Your task to perform on an android device: Go to Reddit.com Image 0: 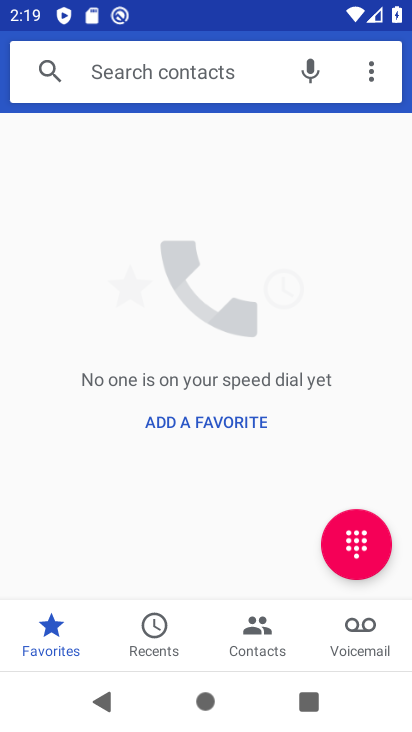
Step 0: press home button
Your task to perform on an android device: Go to Reddit.com Image 1: 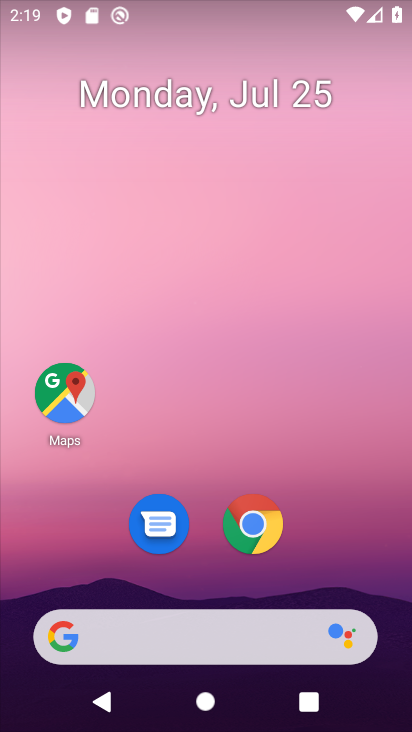
Step 1: click (248, 650)
Your task to perform on an android device: Go to Reddit.com Image 2: 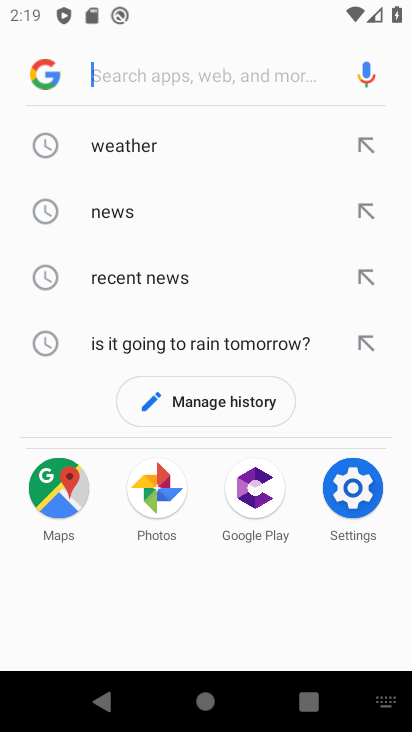
Step 2: type "reddit.com"
Your task to perform on an android device: Go to Reddit.com Image 3: 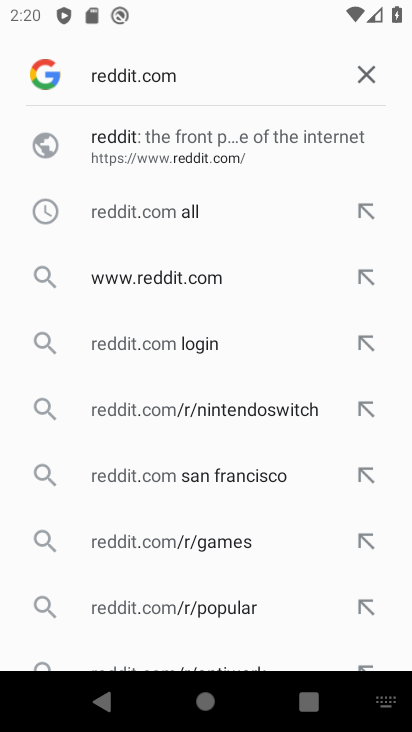
Step 3: click (159, 270)
Your task to perform on an android device: Go to Reddit.com Image 4: 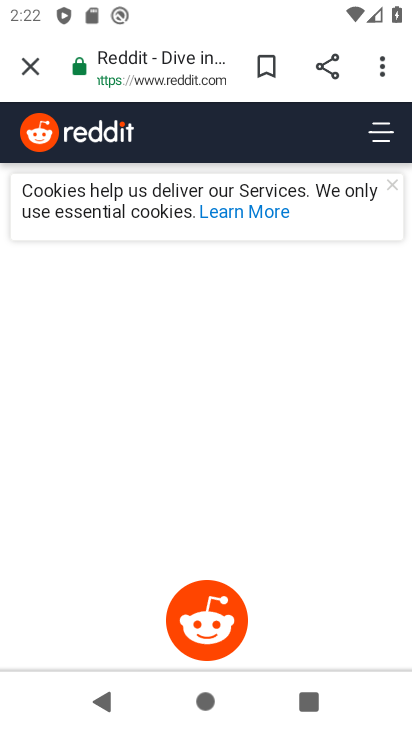
Step 4: click (212, 614)
Your task to perform on an android device: Go to Reddit.com Image 5: 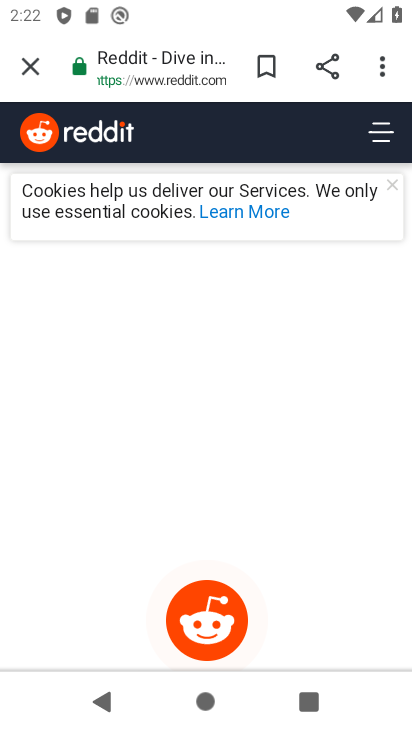
Step 5: task complete